Your task to perform on an android device: turn on bluetooth scan Image 0: 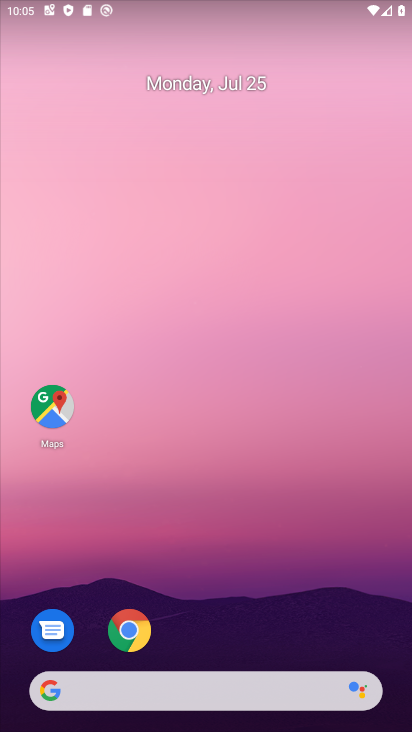
Step 0: drag from (344, 640) to (347, 48)
Your task to perform on an android device: turn on bluetooth scan Image 1: 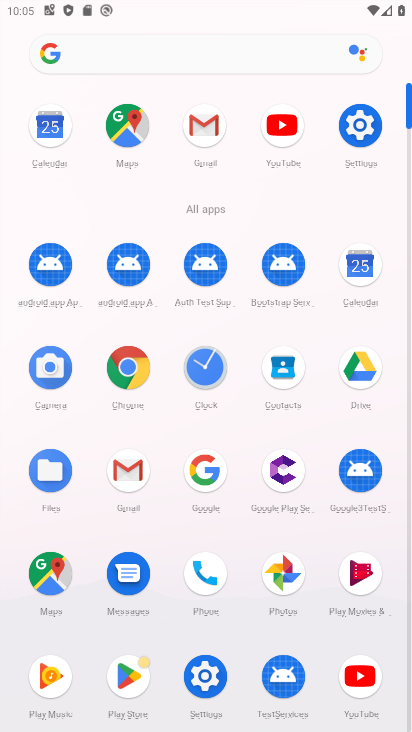
Step 1: click (359, 141)
Your task to perform on an android device: turn on bluetooth scan Image 2: 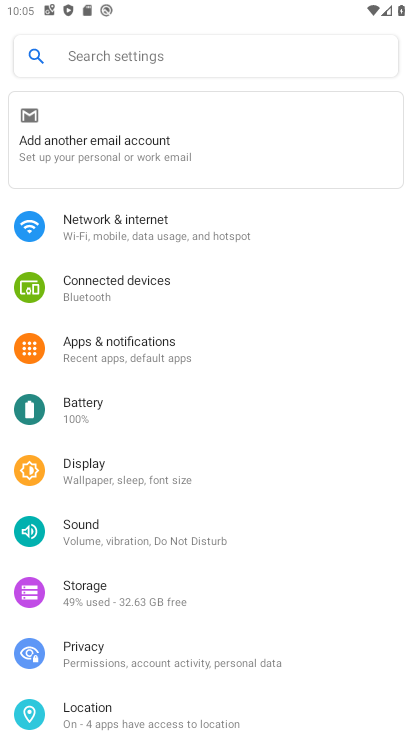
Step 2: drag from (313, 442) to (323, 309)
Your task to perform on an android device: turn on bluetooth scan Image 3: 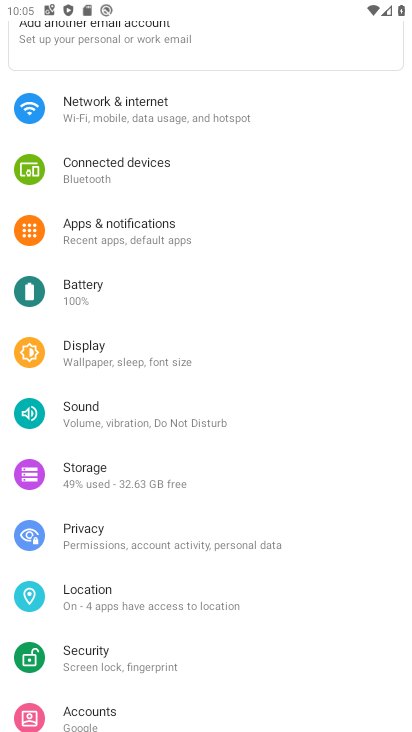
Step 3: drag from (317, 484) to (325, 315)
Your task to perform on an android device: turn on bluetooth scan Image 4: 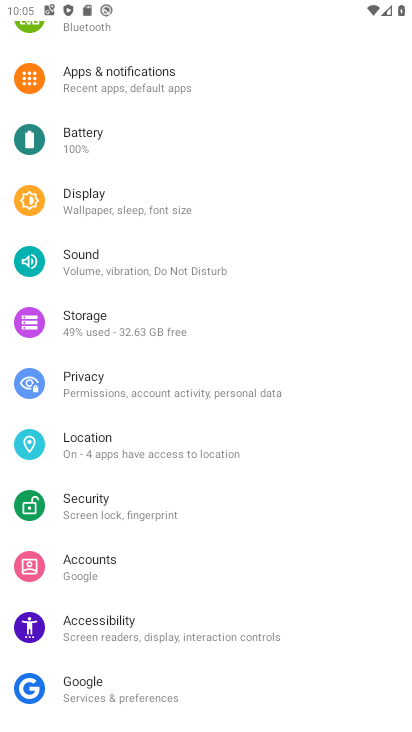
Step 4: drag from (336, 518) to (344, 367)
Your task to perform on an android device: turn on bluetooth scan Image 5: 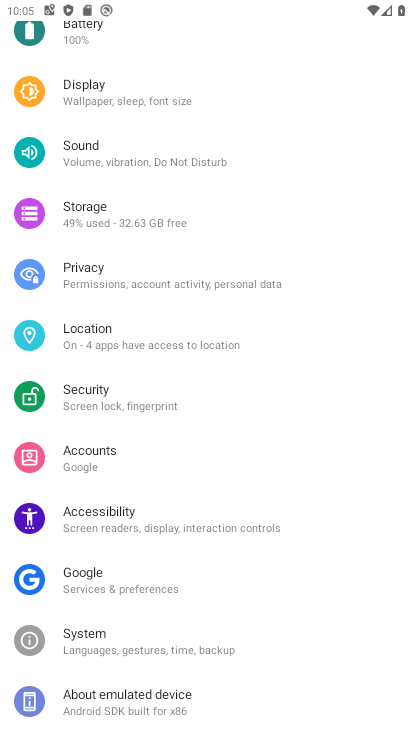
Step 5: drag from (345, 456) to (339, 346)
Your task to perform on an android device: turn on bluetooth scan Image 6: 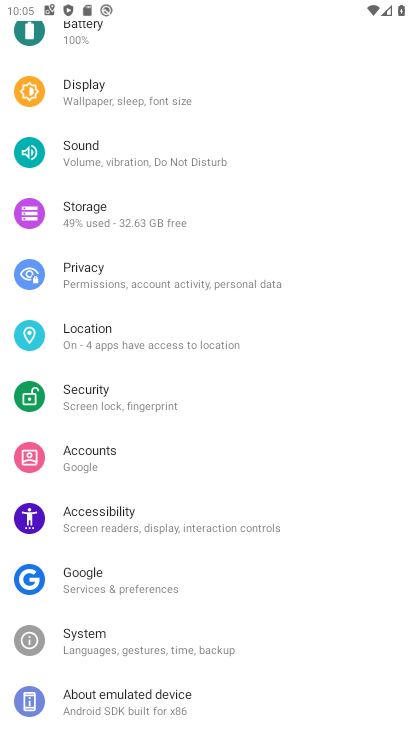
Step 6: click (274, 341)
Your task to perform on an android device: turn on bluetooth scan Image 7: 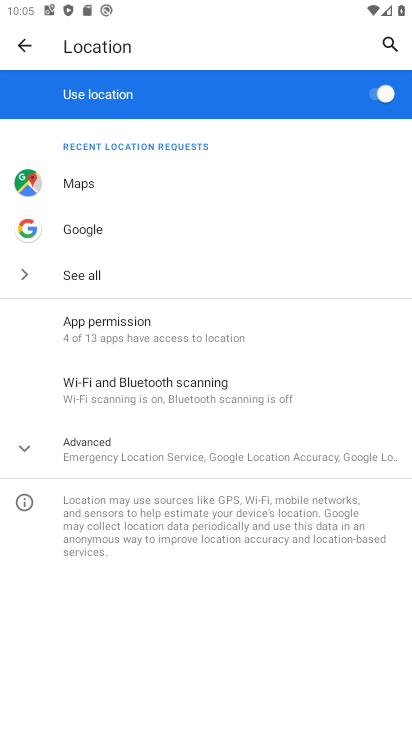
Step 7: click (272, 398)
Your task to perform on an android device: turn on bluetooth scan Image 8: 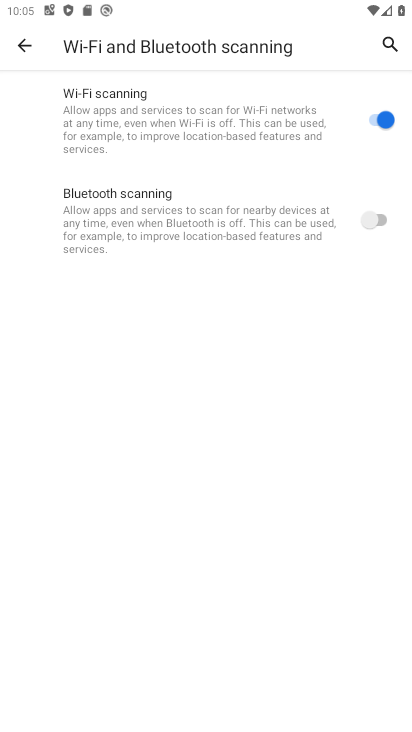
Step 8: click (372, 224)
Your task to perform on an android device: turn on bluetooth scan Image 9: 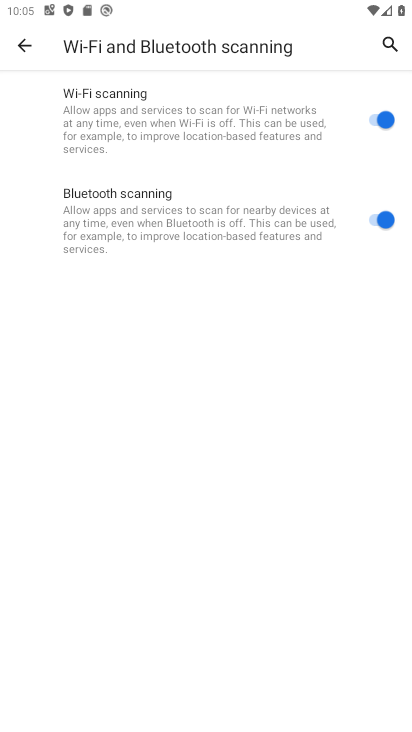
Step 9: task complete